Your task to perform on an android device: Open the map Image 0: 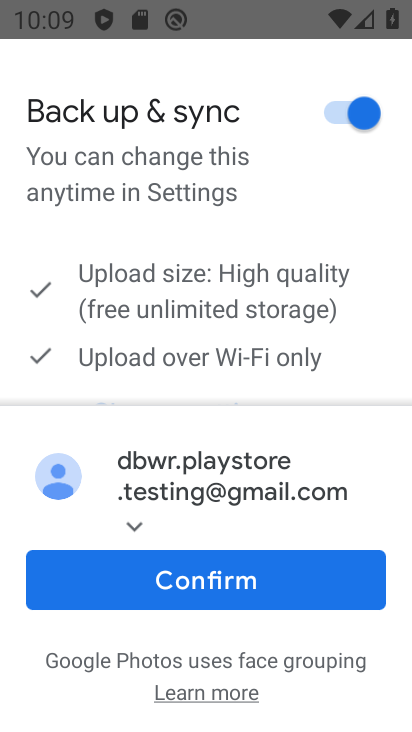
Step 0: task complete